Your task to perform on an android device: turn pop-ups on in chrome Image 0: 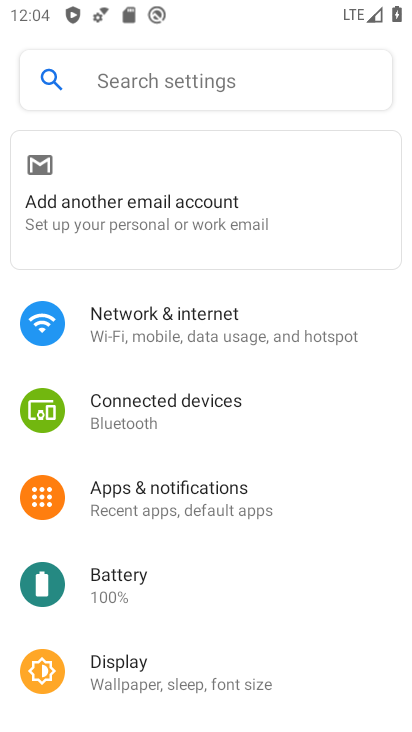
Step 0: press back button
Your task to perform on an android device: turn pop-ups on in chrome Image 1: 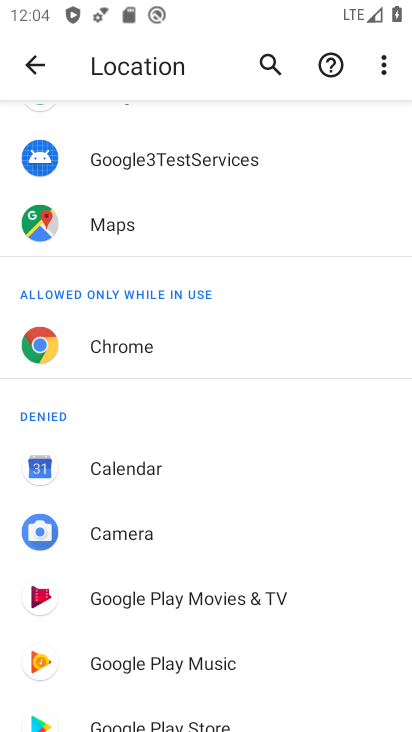
Step 1: press home button
Your task to perform on an android device: turn pop-ups on in chrome Image 2: 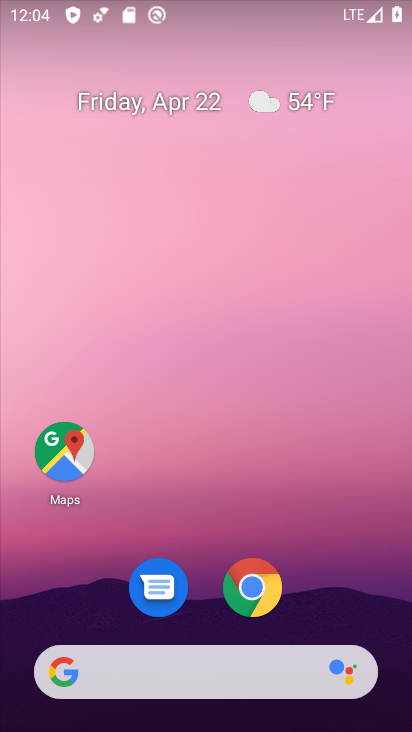
Step 2: click (256, 590)
Your task to perform on an android device: turn pop-ups on in chrome Image 3: 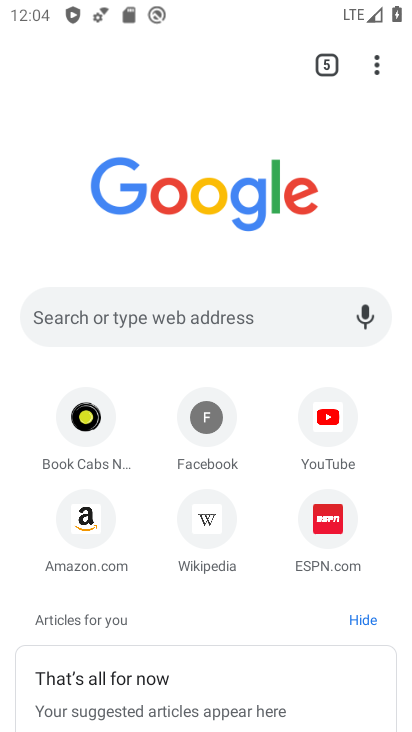
Step 3: drag from (377, 68) to (211, 619)
Your task to perform on an android device: turn pop-ups on in chrome Image 4: 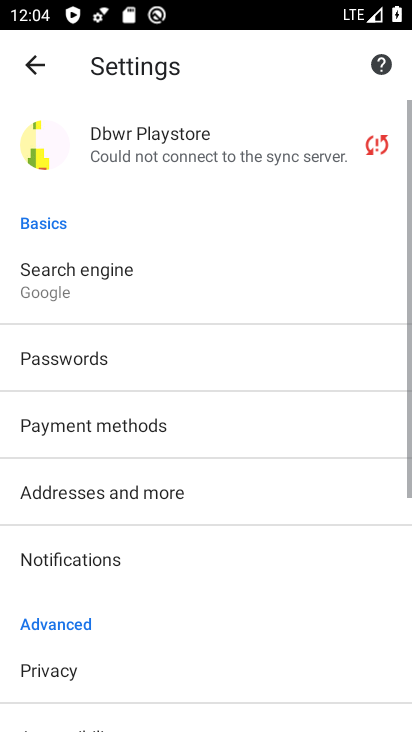
Step 4: drag from (152, 641) to (276, 95)
Your task to perform on an android device: turn pop-ups on in chrome Image 5: 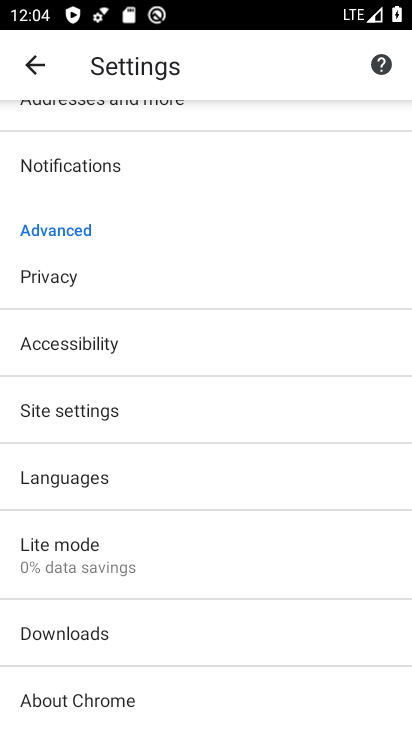
Step 5: click (114, 406)
Your task to perform on an android device: turn pop-ups on in chrome Image 6: 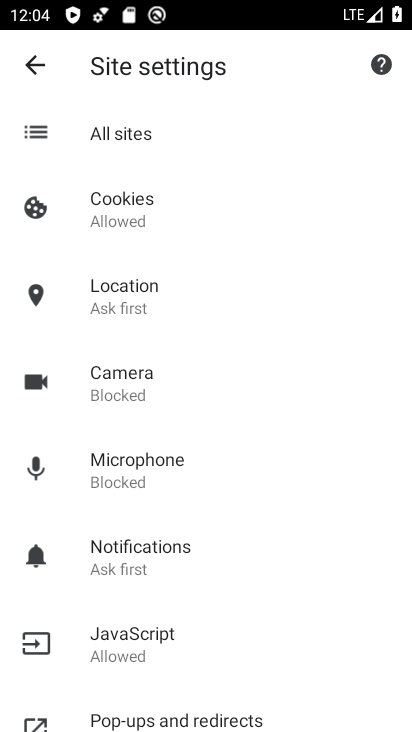
Step 6: drag from (147, 692) to (260, 315)
Your task to perform on an android device: turn pop-ups on in chrome Image 7: 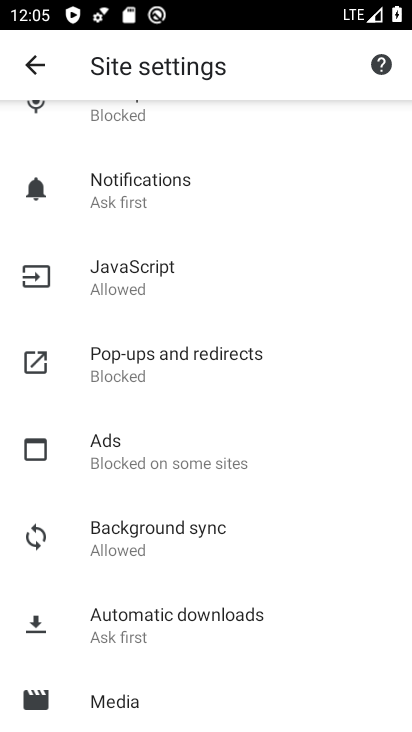
Step 7: click (144, 366)
Your task to perform on an android device: turn pop-ups on in chrome Image 8: 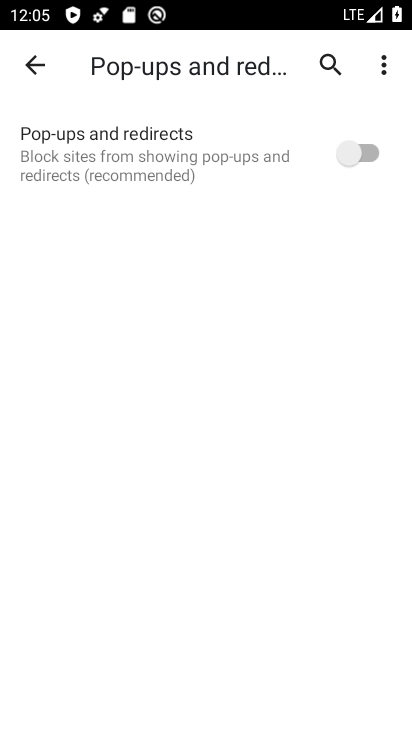
Step 8: click (360, 149)
Your task to perform on an android device: turn pop-ups on in chrome Image 9: 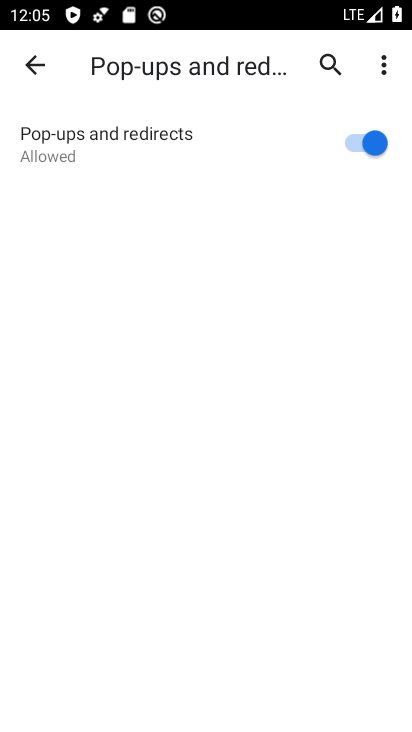
Step 9: task complete